Your task to perform on an android device: Go to location settings Image 0: 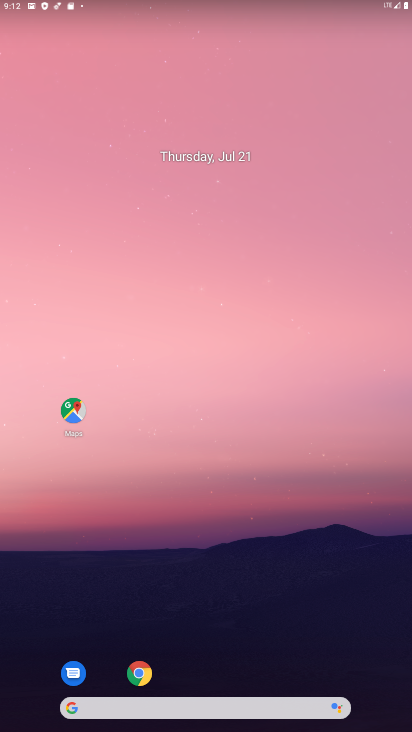
Step 0: drag from (169, 581) to (281, 185)
Your task to perform on an android device: Go to location settings Image 1: 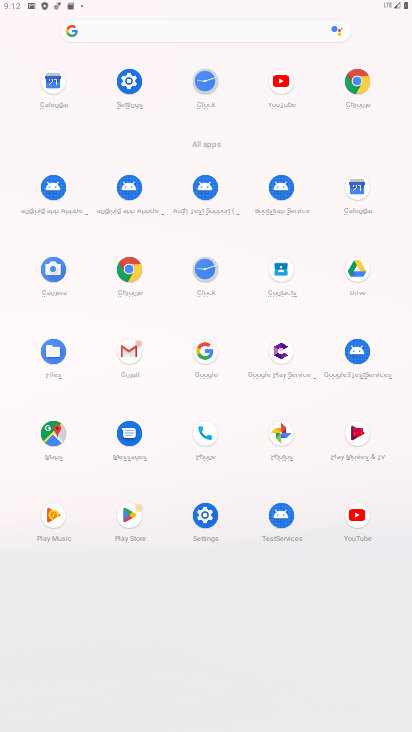
Step 1: click (198, 516)
Your task to perform on an android device: Go to location settings Image 2: 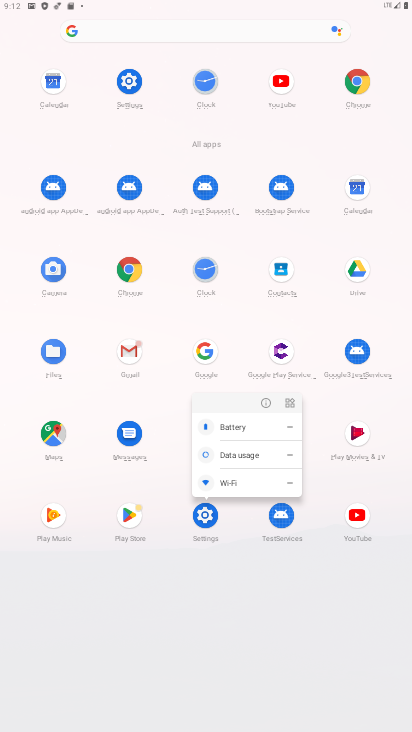
Step 2: click (261, 399)
Your task to perform on an android device: Go to location settings Image 3: 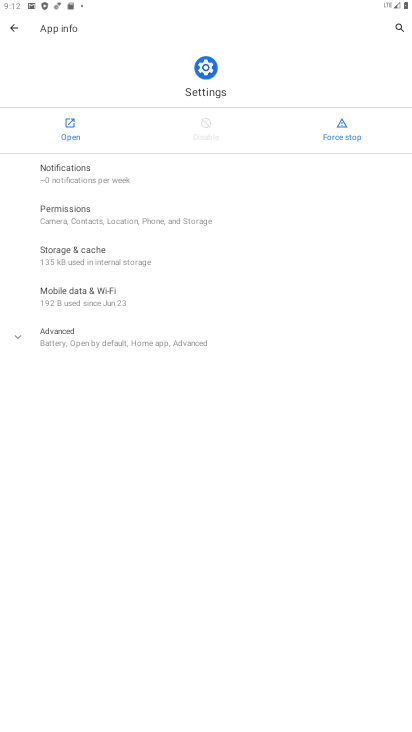
Step 3: click (69, 134)
Your task to perform on an android device: Go to location settings Image 4: 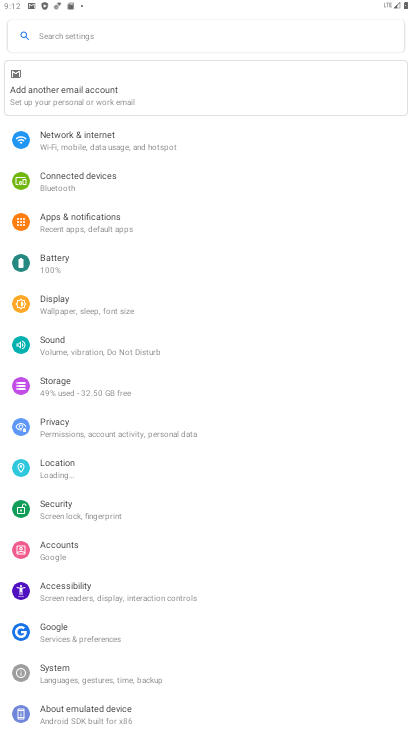
Step 4: click (86, 469)
Your task to perform on an android device: Go to location settings Image 5: 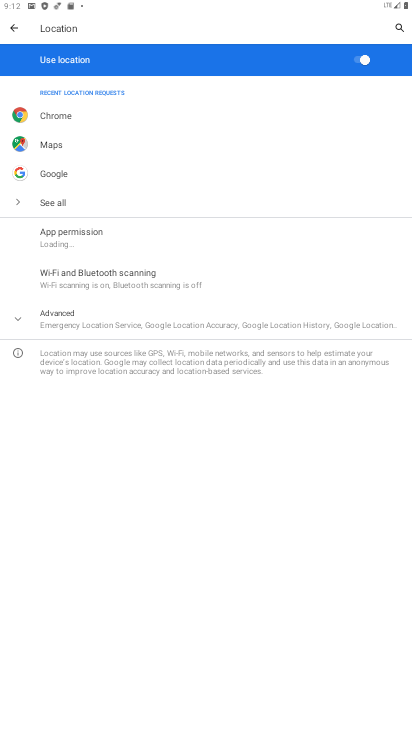
Step 5: click (130, 305)
Your task to perform on an android device: Go to location settings Image 6: 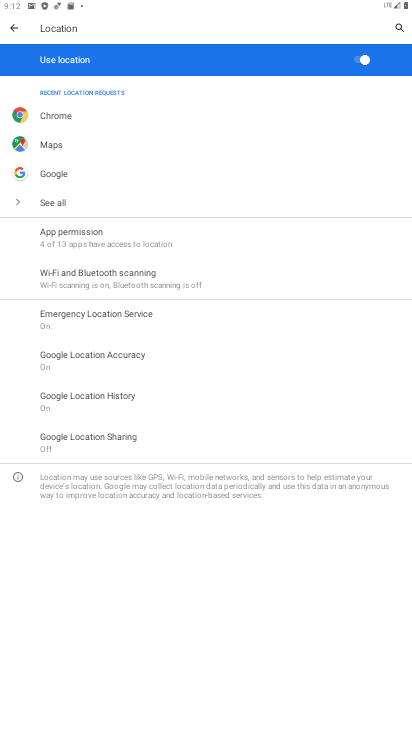
Step 6: task complete